Your task to perform on an android device: Open the phone app and click the voicemail tab. Image 0: 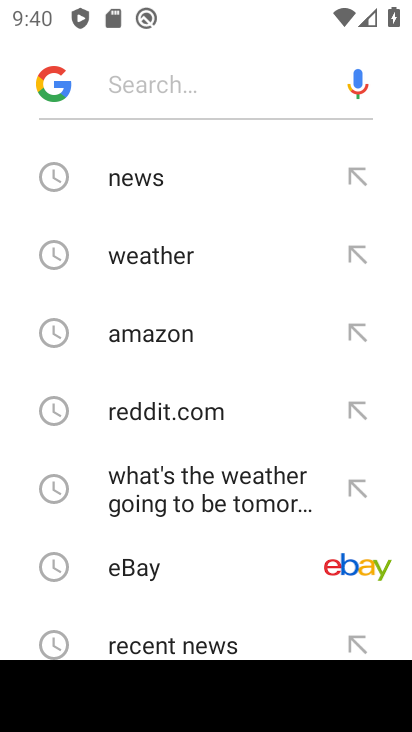
Step 0: press home button
Your task to perform on an android device: Open the phone app and click the voicemail tab. Image 1: 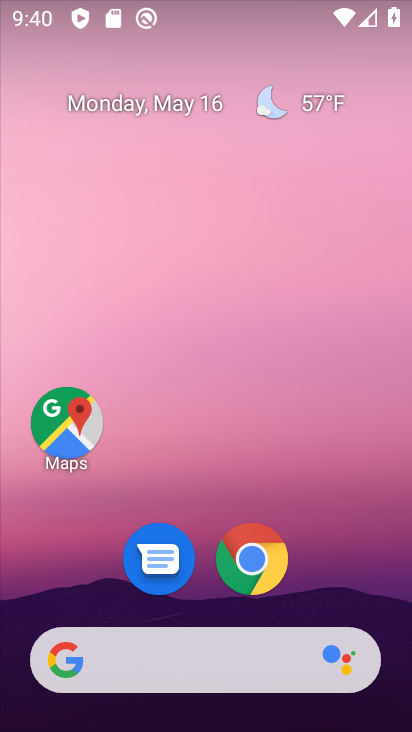
Step 1: drag from (368, 536) to (385, 67)
Your task to perform on an android device: Open the phone app and click the voicemail tab. Image 2: 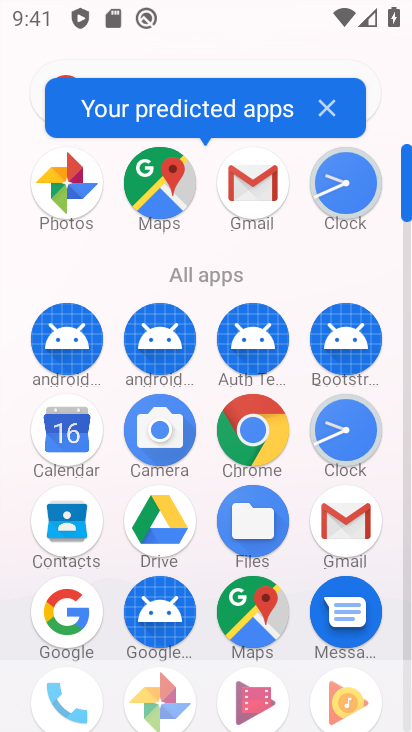
Step 2: drag from (294, 502) to (321, 252)
Your task to perform on an android device: Open the phone app and click the voicemail tab. Image 3: 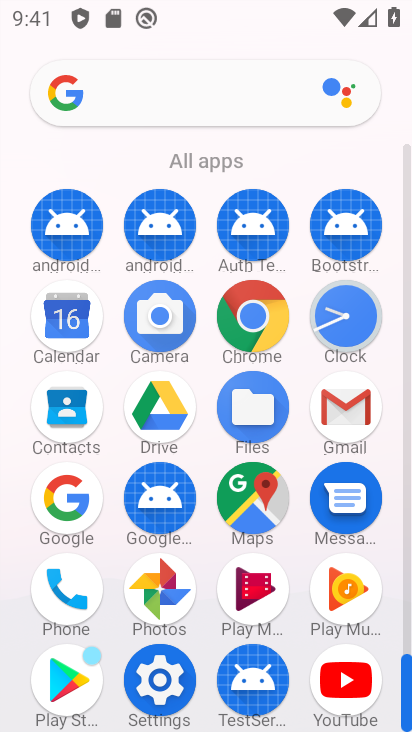
Step 3: click (74, 596)
Your task to perform on an android device: Open the phone app and click the voicemail tab. Image 4: 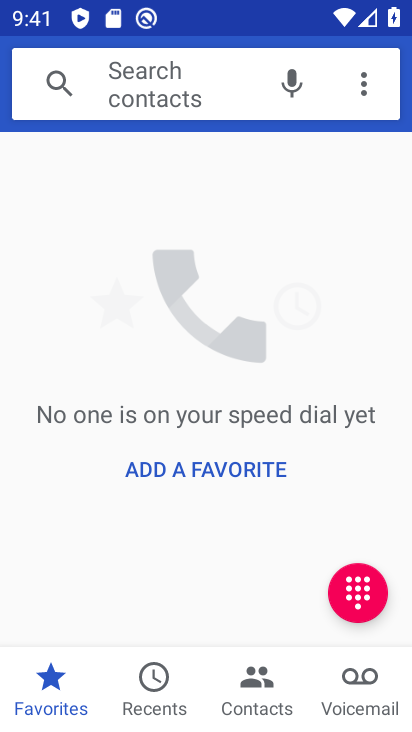
Step 4: click (386, 695)
Your task to perform on an android device: Open the phone app and click the voicemail tab. Image 5: 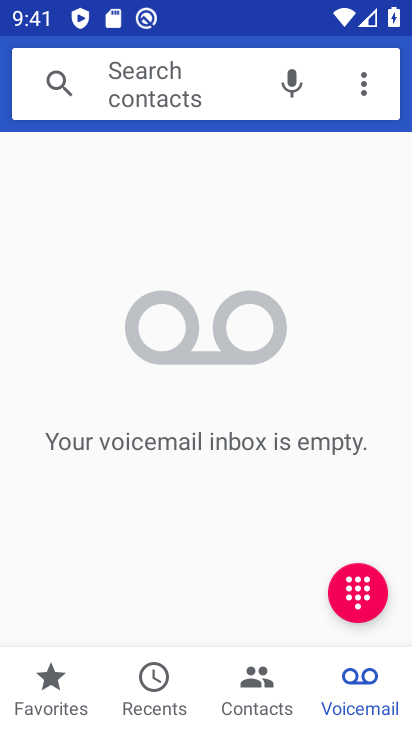
Step 5: task complete